Your task to perform on an android device: visit the assistant section in the google photos Image 0: 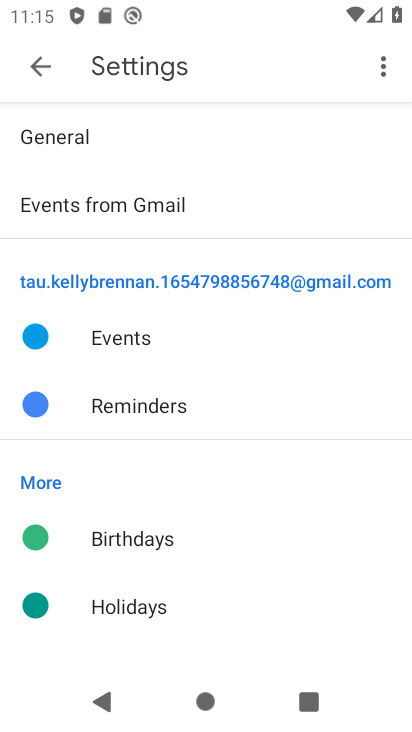
Step 0: press home button
Your task to perform on an android device: visit the assistant section in the google photos Image 1: 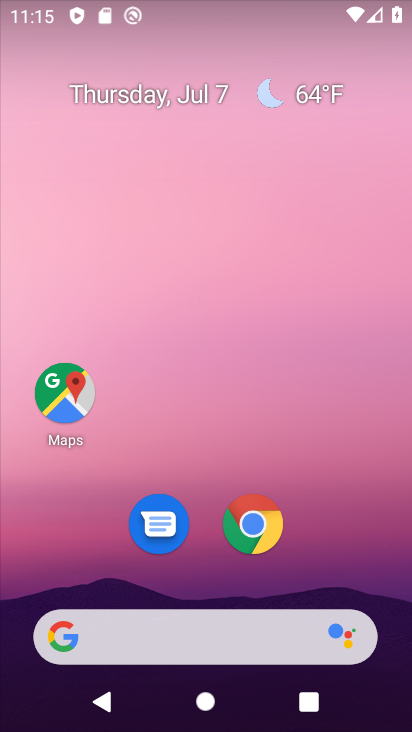
Step 1: drag from (223, 457) to (309, 0)
Your task to perform on an android device: visit the assistant section in the google photos Image 2: 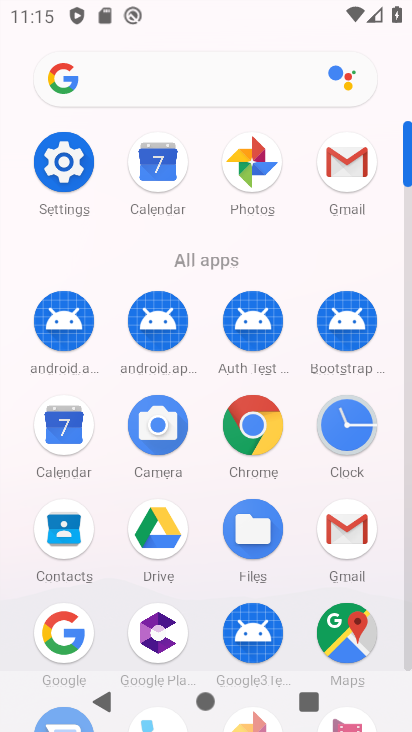
Step 2: click (255, 164)
Your task to perform on an android device: visit the assistant section in the google photos Image 3: 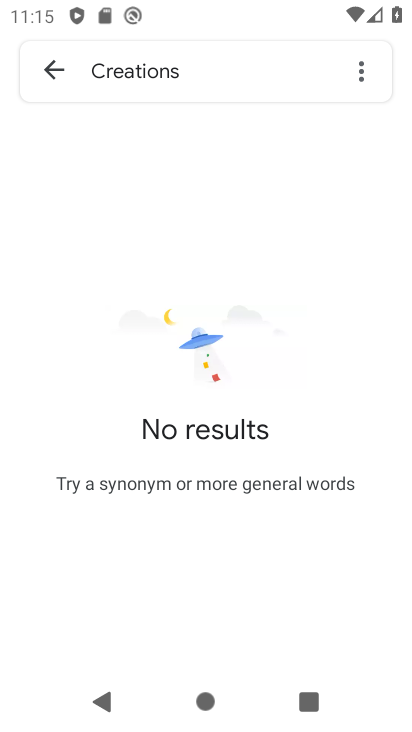
Step 3: click (54, 67)
Your task to perform on an android device: visit the assistant section in the google photos Image 4: 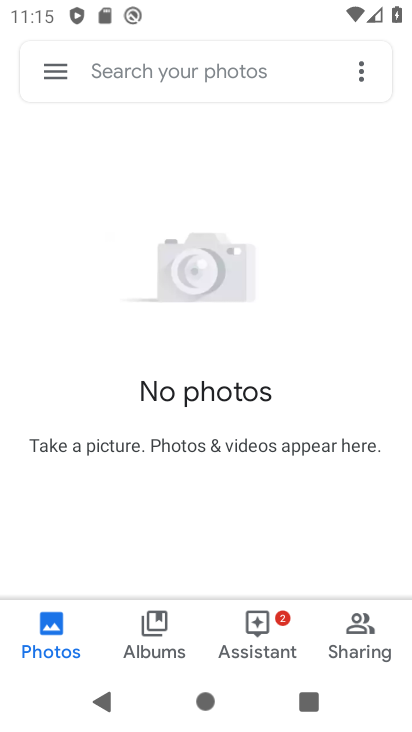
Step 4: click (252, 629)
Your task to perform on an android device: visit the assistant section in the google photos Image 5: 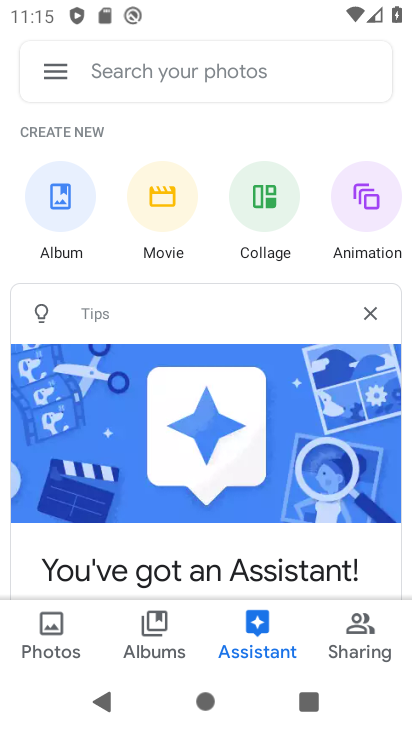
Step 5: task complete